Your task to perform on an android device: change keyboard looks Image 0: 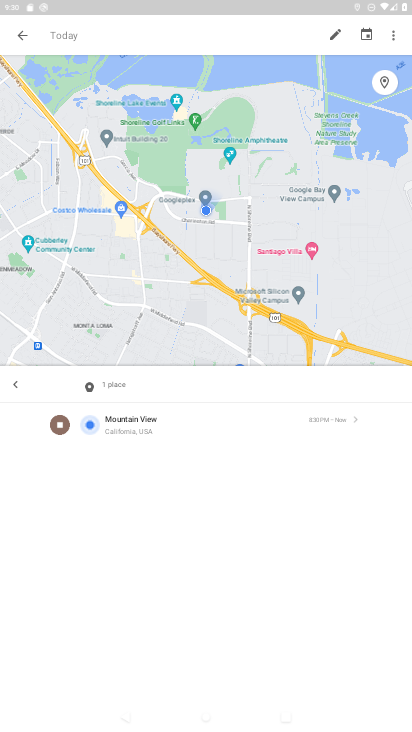
Step 0: press home button
Your task to perform on an android device: change keyboard looks Image 1: 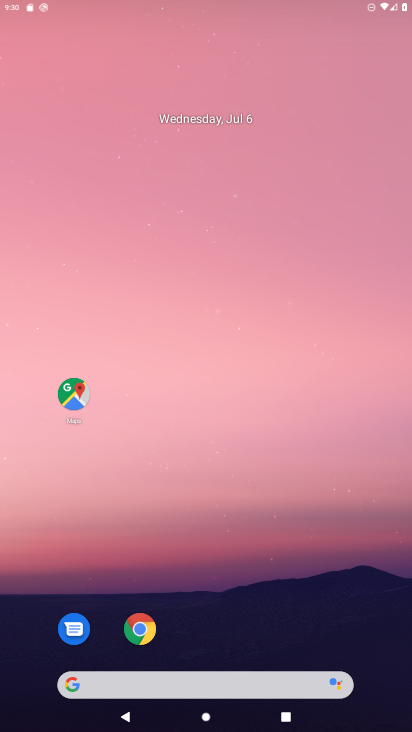
Step 1: drag from (188, 653) to (318, 47)
Your task to perform on an android device: change keyboard looks Image 2: 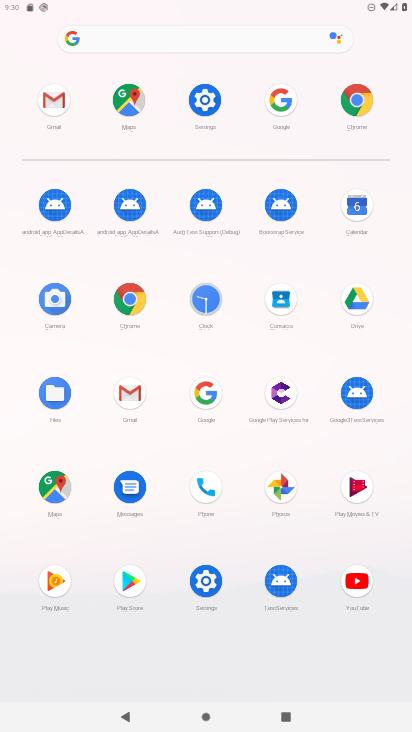
Step 2: click (207, 108)
Your task to perform on an android device: change keyboard looks Image 3: 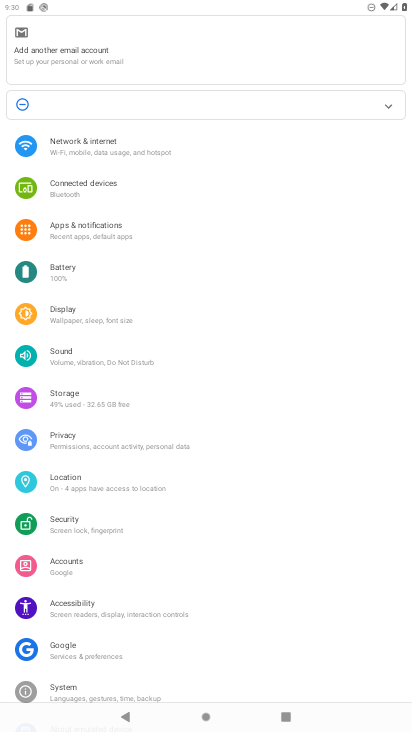
Step 3: drag from (111, 658) to (142, 207)
Your task to perform on an android device: change keyboard looks Image 4: 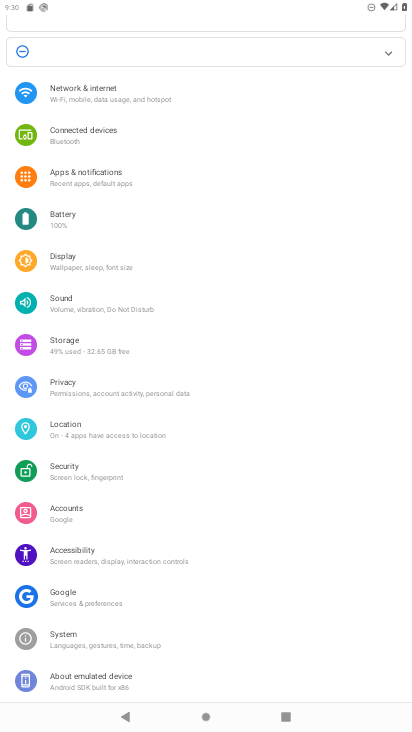
Step 4: click (78, 644)
Your task to perform on an android device: change keyboard looks Image 5: 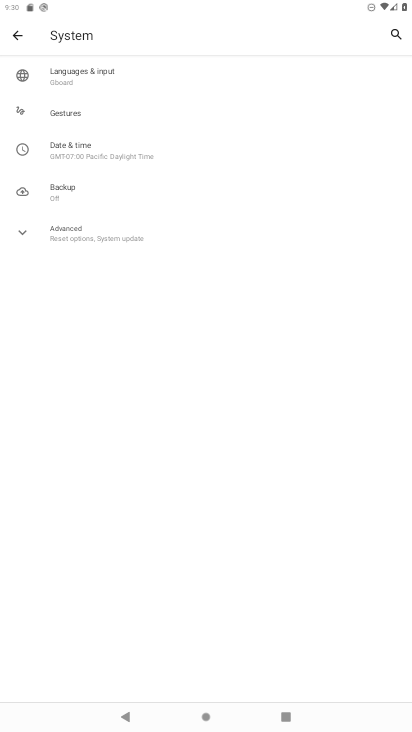
Step 5: click (102, 79)
Your task to perform on an android device: change keyboard looks Image 6: 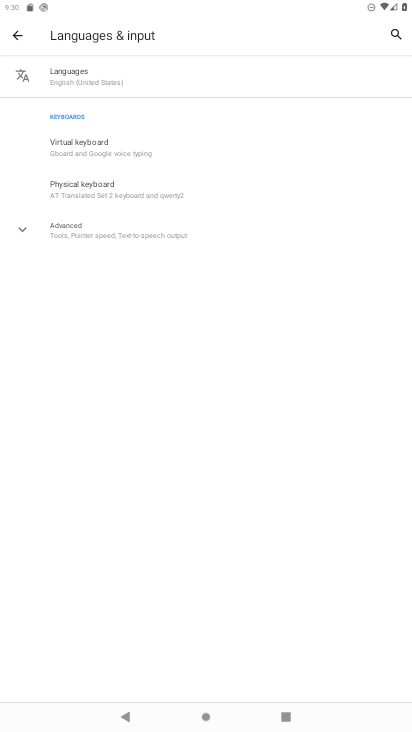
Step 6: click (107, 156)
Your task to perform on an android device: change keyboard looks Image 7: 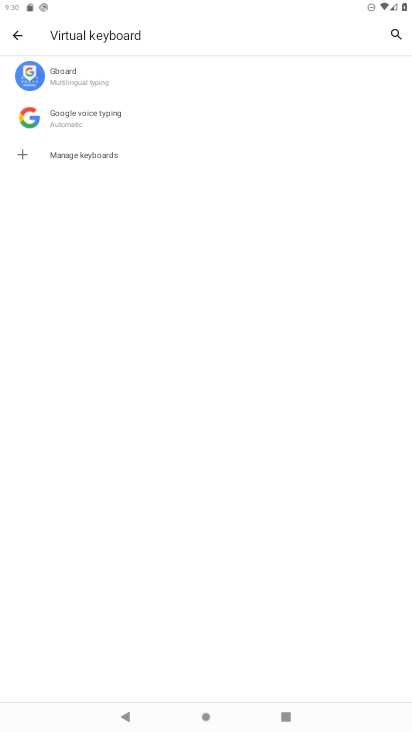
Step 7: click (99, 82)
Your task to perform on an android device: change keyboard looks Image 8: 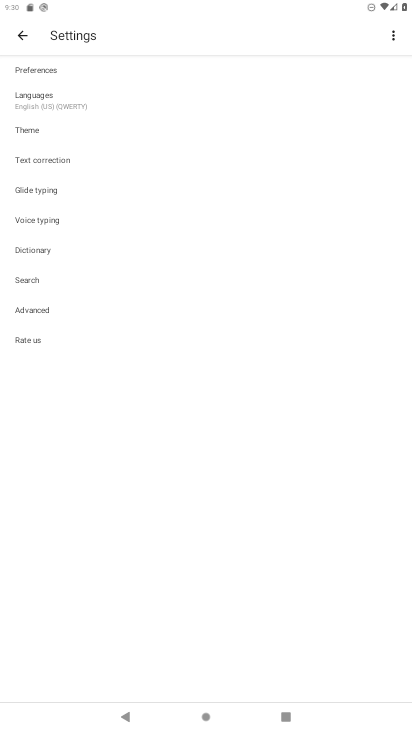
Step 8: click (34, 120)
Your task to perform on an android device: change keyboard looks Image 9: 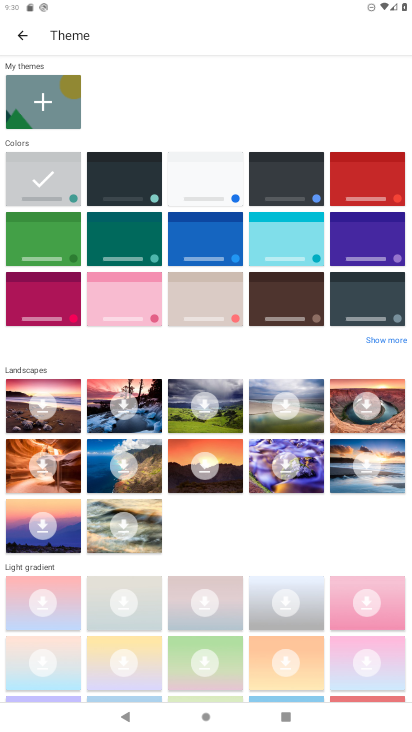
Step 9: click (186, 229)
Your task to perform on an android device: change keyboard looks Image 10: 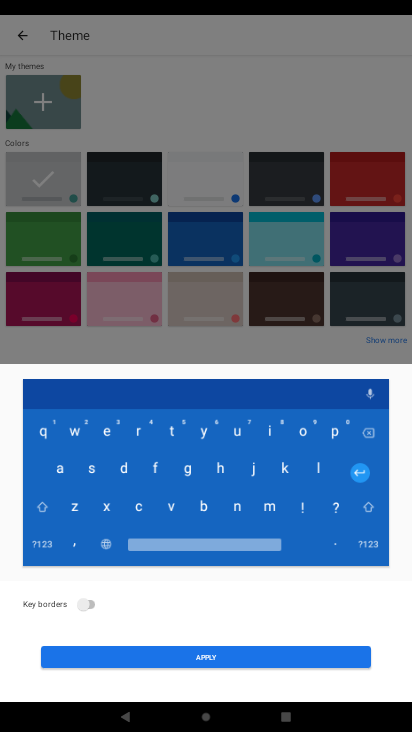
Step 10: click (285, 663)
Your task to perform on an android device: change keyboard looks Image 11: 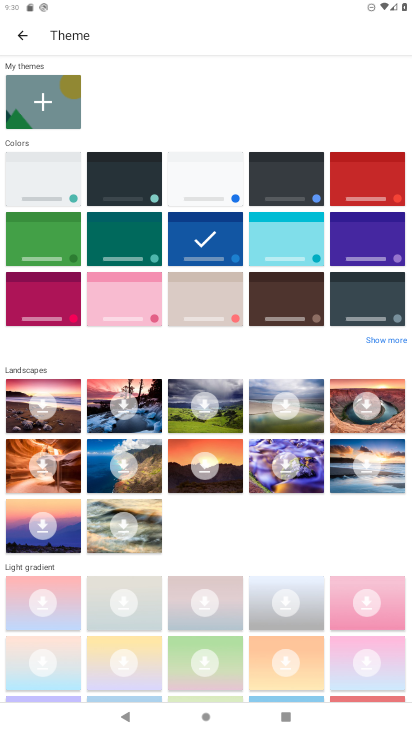
Step 11: task complete